Your task to perform on an android device: open a bookmark in the chrome app Image 0: 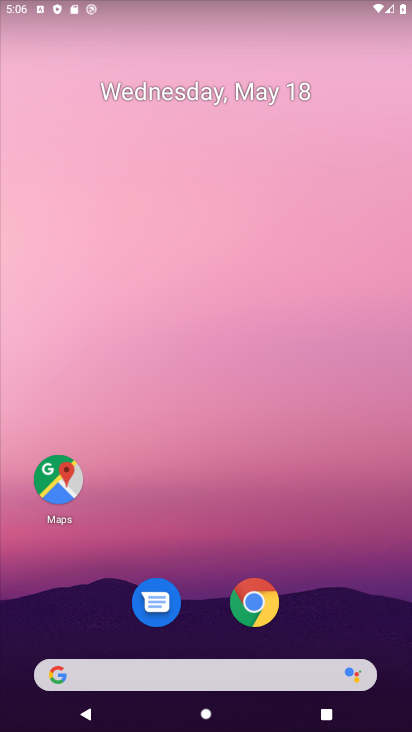
Step 0: drag from (211, 619) to (205, 120)
Your task to perform on an android device: open a bookmark in the chrome app Image 1: 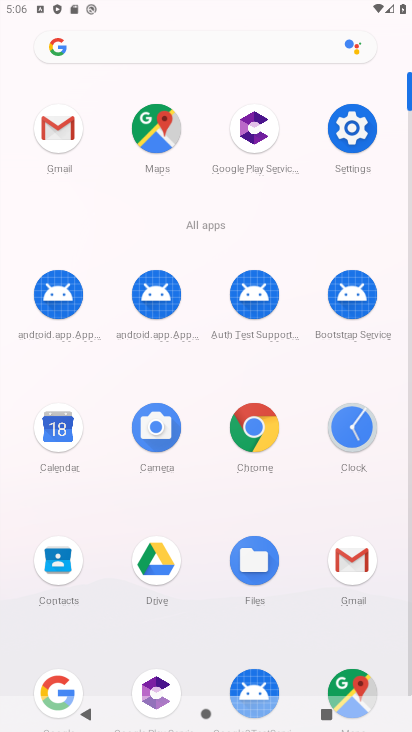
Step 1: click (243, 437)
Your task to perform on an android device: open a bookmark in the chrome app Image 2: 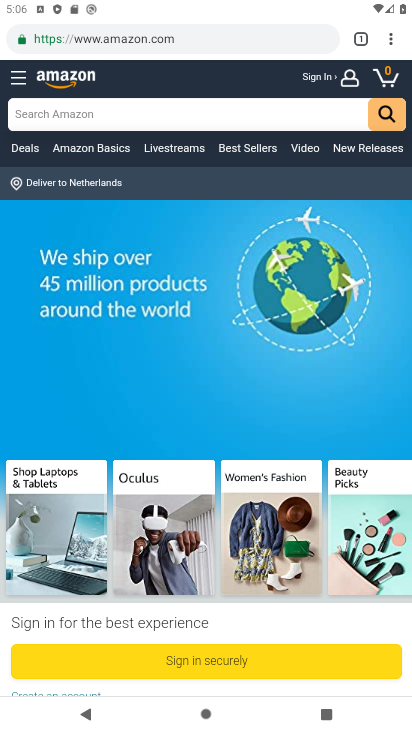
Step 2: click (386, 32)
Your task to perform on an android device: open a bookmark in the chrome app Image 3: 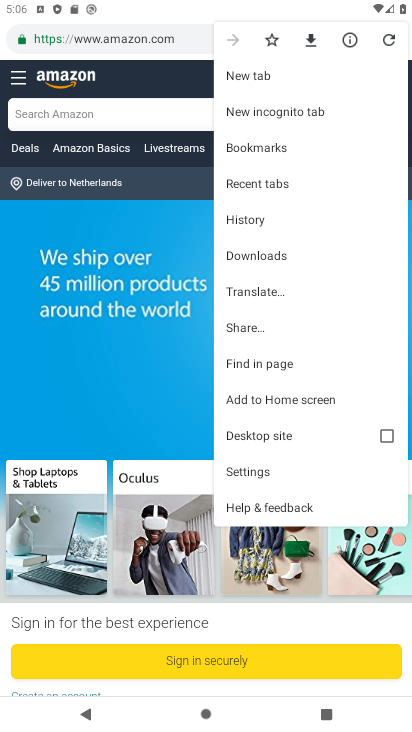
Step 3: click (289, 154)
Your task to perform on an android device: open a bookmark in the chrome app Image 4: 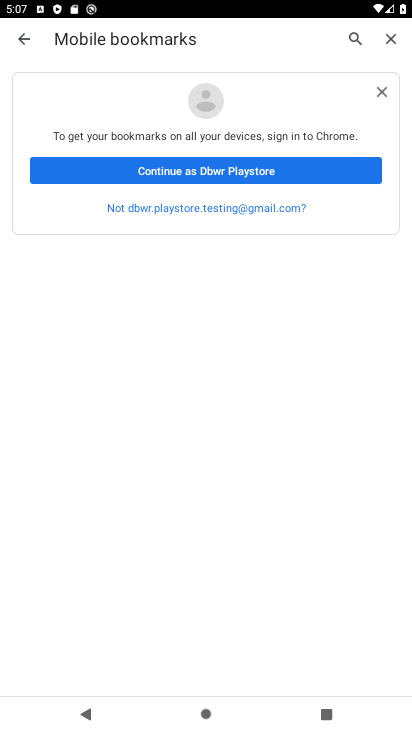
Step 4: task complete